Your task to perform on an android device: set an alarm Image 0: 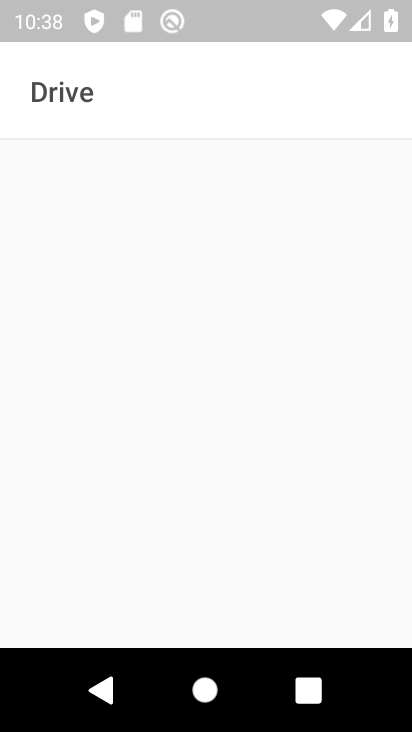
Step 0: press home button
Your task to perform on an android device: set an alarm Image 1: 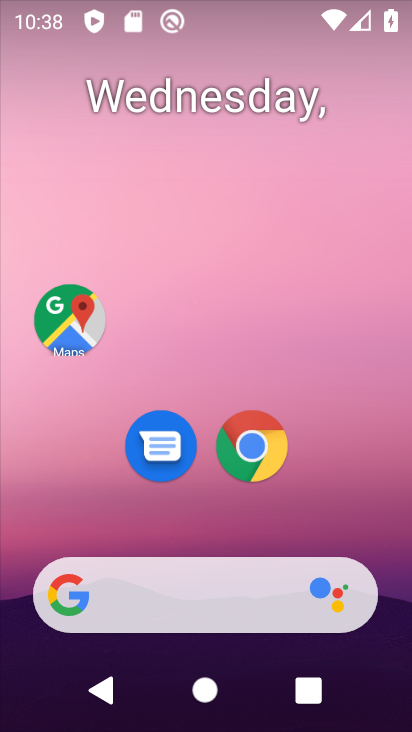
Step 1: drag from (353, 513) to (375, 123)
Your task to perform on an android device: set an alarm Image 2: 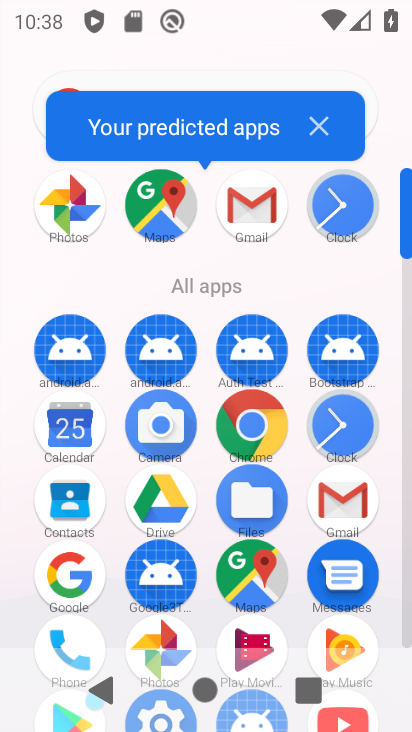
Step 2: click (360, 435)
Your task to perform on an android device: set an alarm Image 3: 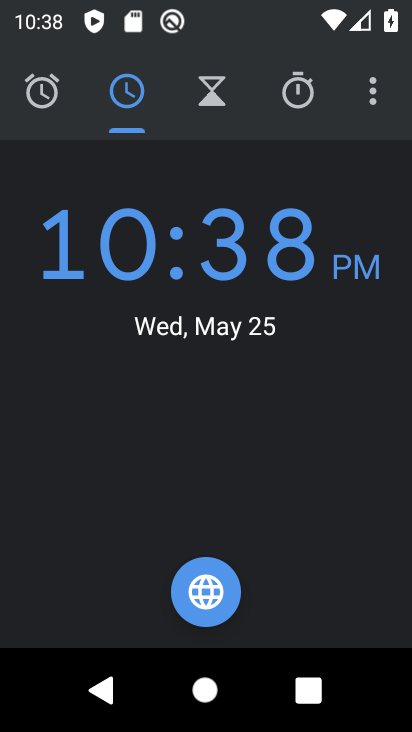
Step 3: click (46, 110)
Your task to perform on an android device: set an alarm Image 4: 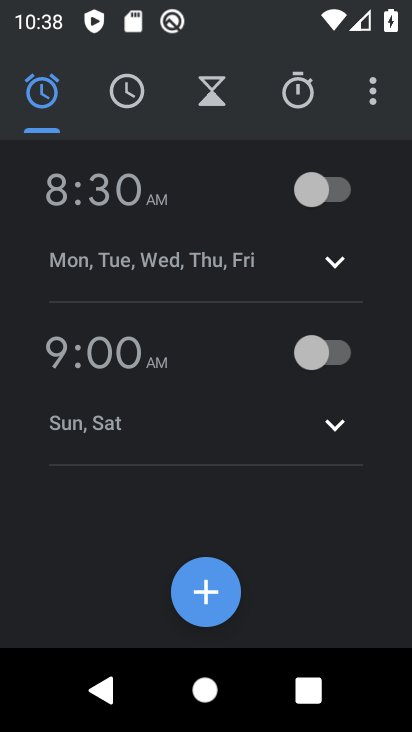
Step 4: task complete